Your task to perform on an android device: Show me recent news Image 0: 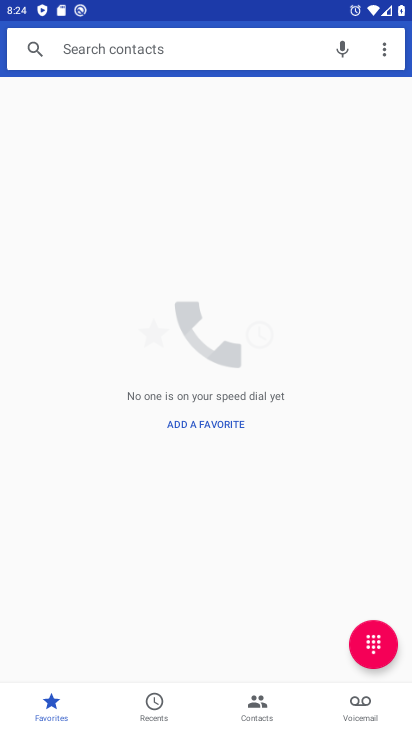
Step 0: press home button
Your task to perform on an android device: Show me recent news Image 1: 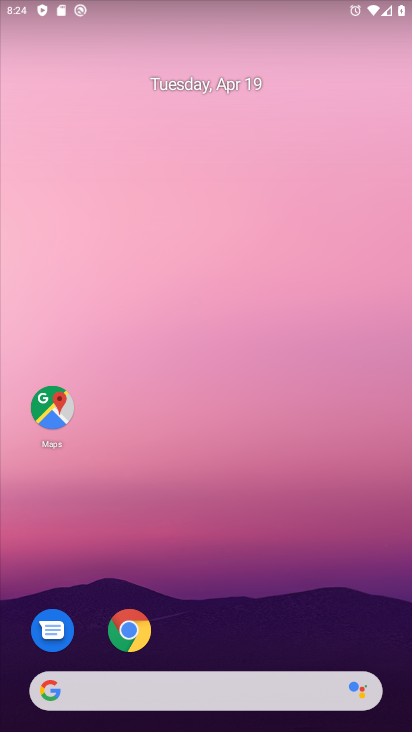
Step 1: drag from (295, 661) to (354, 1)
Your task to perform on an android device: Show me recent news Image 2: 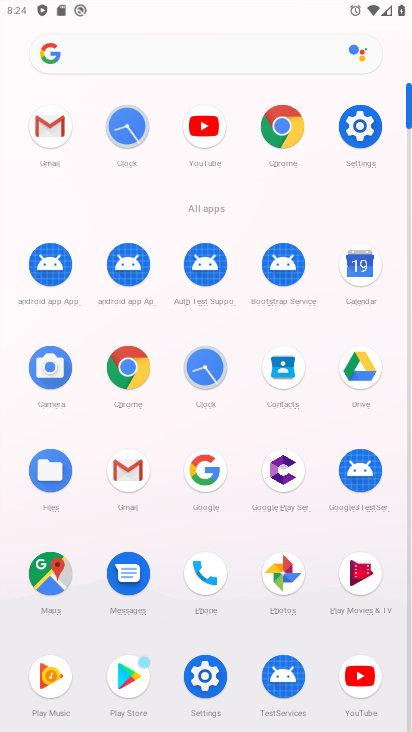
Step 2: click (203, 487)
Your task to perform on an android device: Show me recent news Image 3: 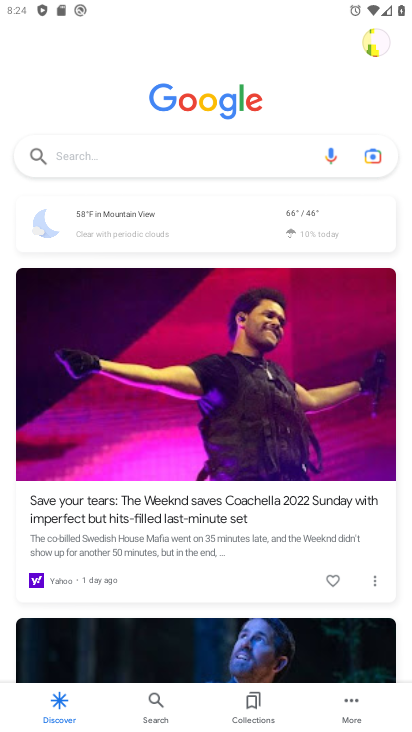
Step 3: click (176, 165)
Your task to perform on an android device: Show me recent news Image 4: 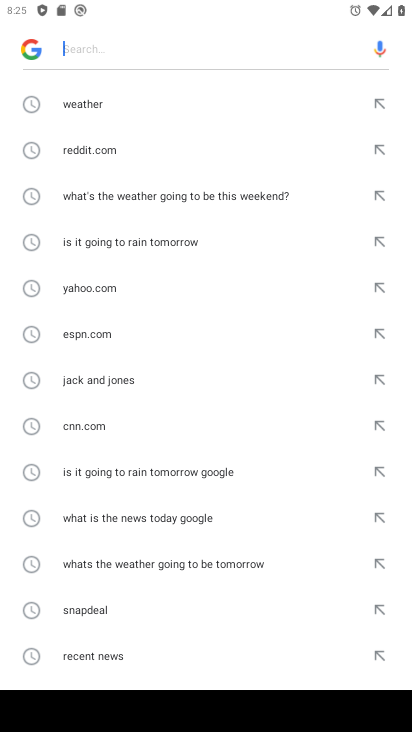
Step 4: click (141, 654)
Your task to perform on an android device: Show me recent news Image 5: 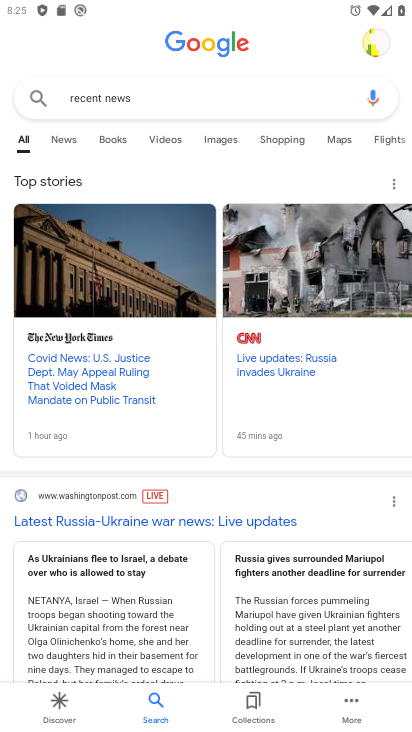
Step 5: click (67, 137)
Your task to perform on an android device: Show me recent news Image 6: 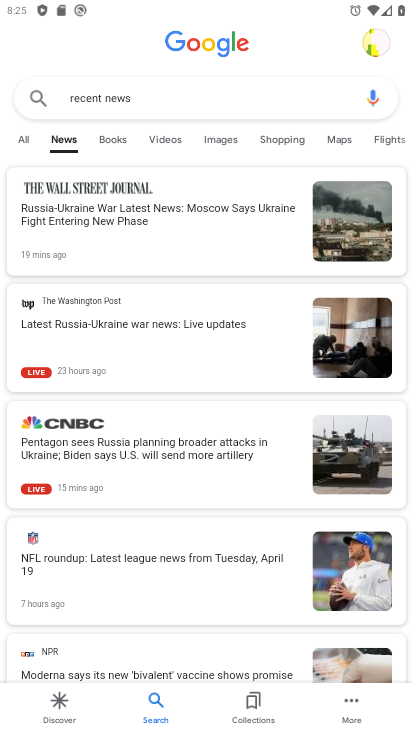
Step 6: task complete